Your task to perform on an android device: toggle wifi Image 0: 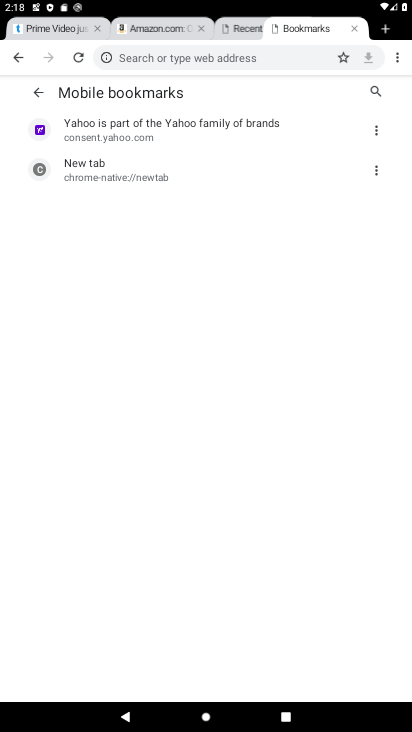
Step 0: press home button
Your task to perform on an android device: toggle wifi Image 1: 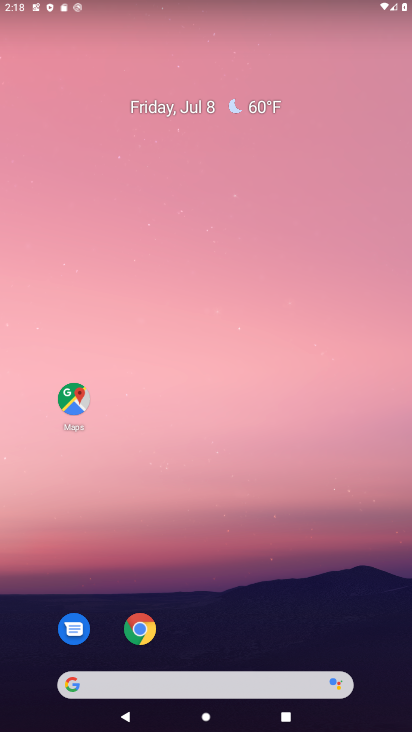
Step 1: drag from (216, 635) to (218, 207)
Your task to perform on an android device: toggle wifi Image 2: 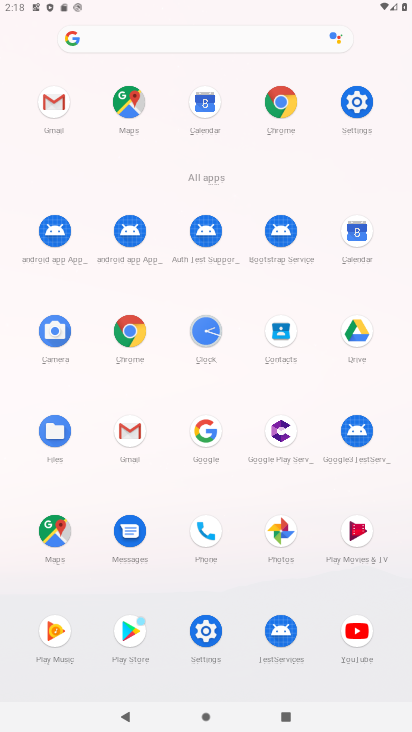
Step 2: click (364, 114)
Your task to perform on an android device: toggle wifi Image 3: 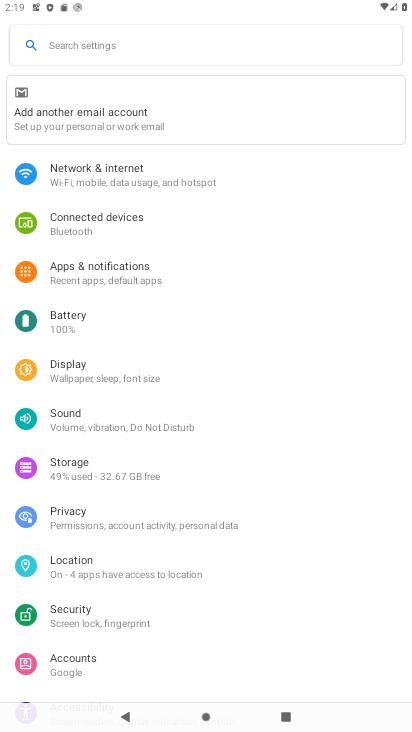
Step 3: click (166, 166)
Your task to perform on an android device: toggle wifi Image 4: 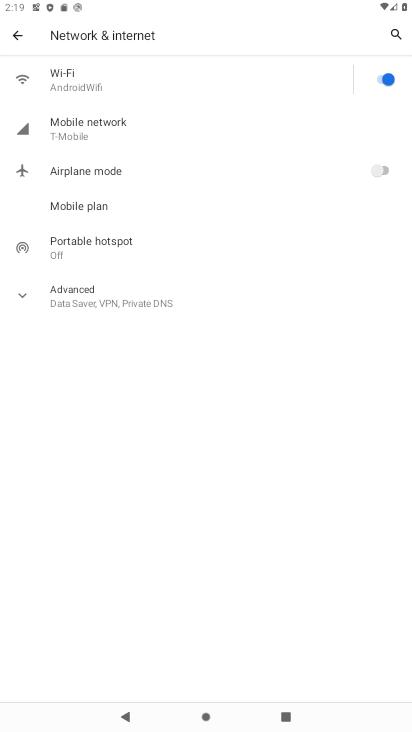
Step 4: click (376, 81)
Your task to perform on an android device: toggle wifi Image 5: 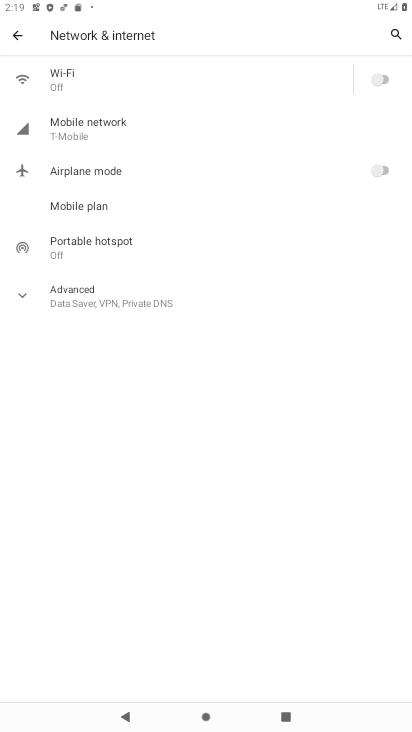
Step 5: task complete